Your task to perform on an android device: Go to privacy settings Image 0: 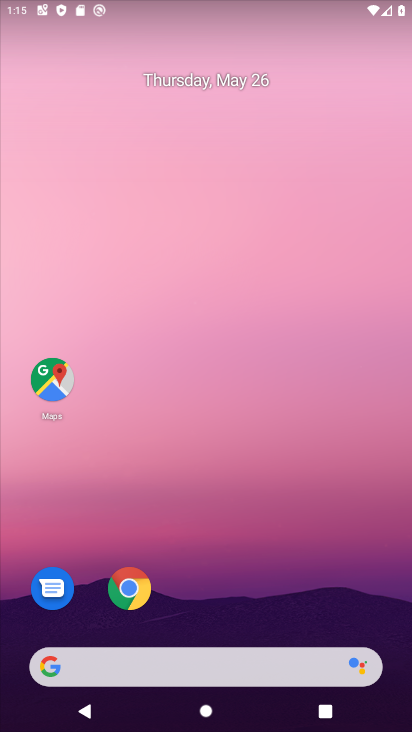
Step 0: click (130, 587)
Your task to perform on an android device: Go to privacy settings Image 1: 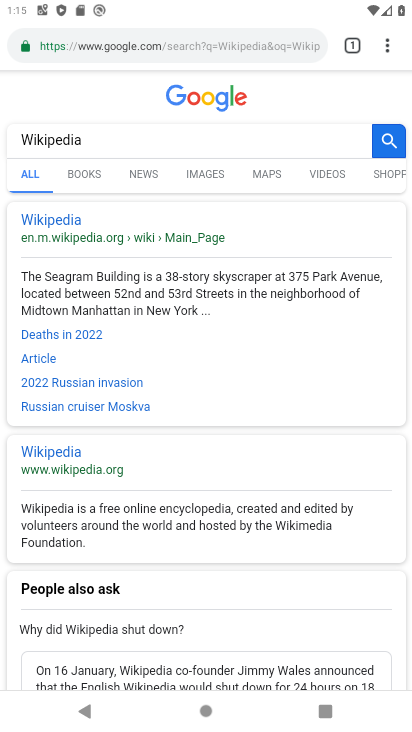
Step 1: click (386, 42)
Your task to perform on an android device: Go to privacy settings Image 2: 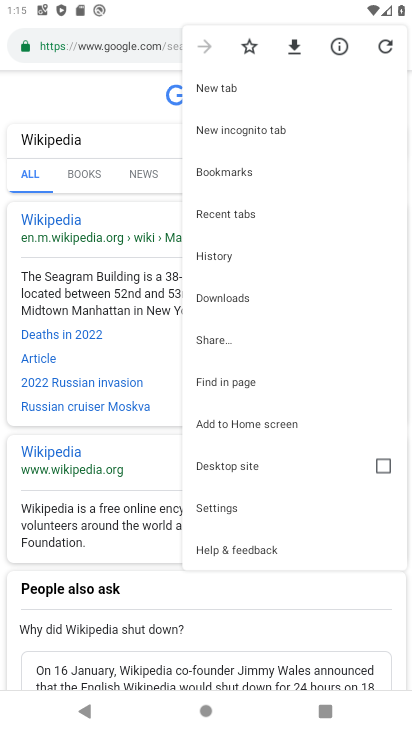
Step 2: click (220, 509)
Your task to perform on an android device: Go to privacy settings Image 3: 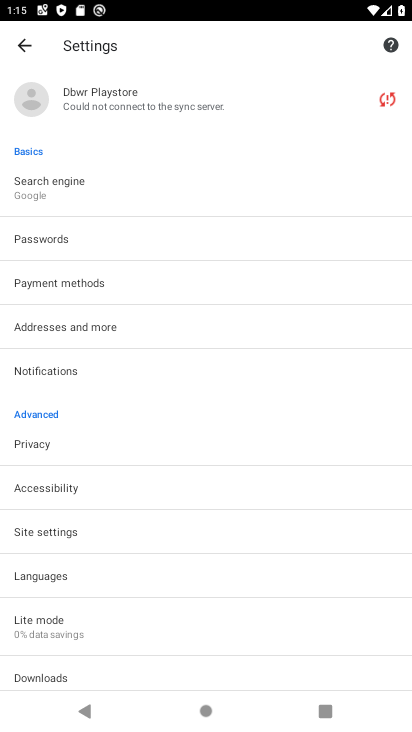
Step 3: click (28, 437)
Your task to perform on an android device: Go to privacy settings Image 4: 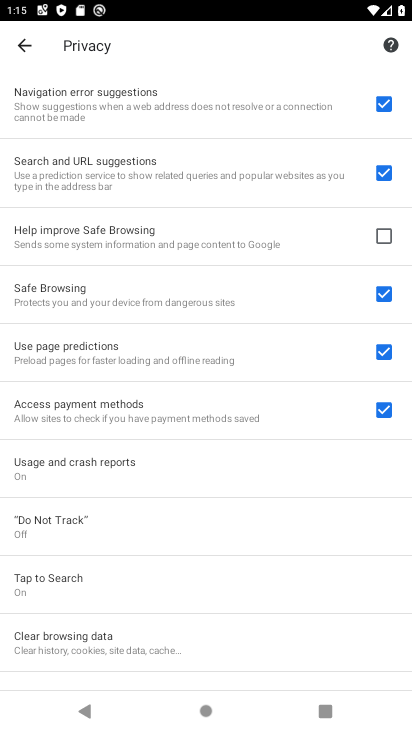
Step 4: task complete